Your task to perform on an android device: allow cookies in the chrome app Image 0: 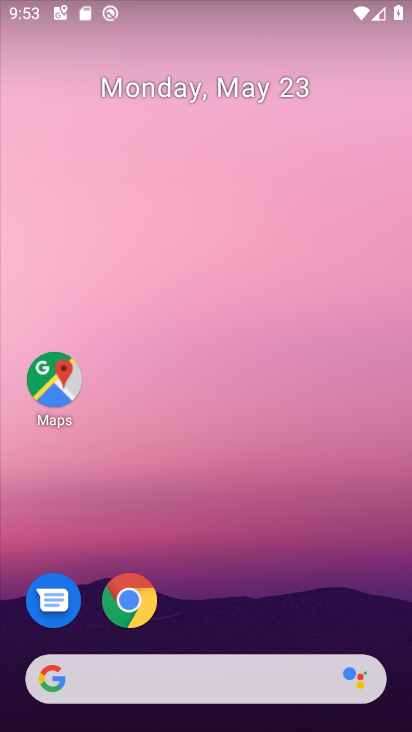
Step 0: click (124, 597)
Your task to perform on an android device: allow cookies in the chrome app Image 1: 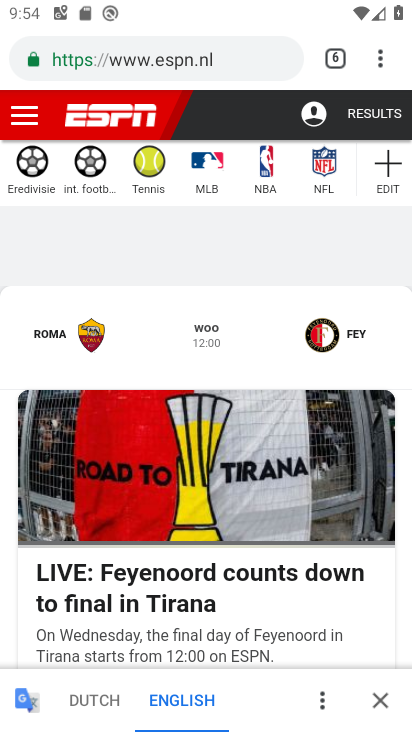
Step 1: click (378, 62)
Your task to perform on an android device: allow cookies in the chrome app Image 2: 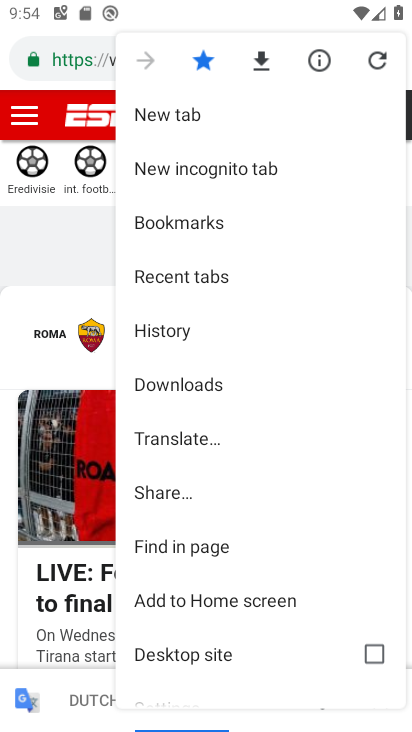
Step 2: drag from (217, 626) to (220, 221)
Your task to perform on an android device: allow cookies in the chrome app Image 3: 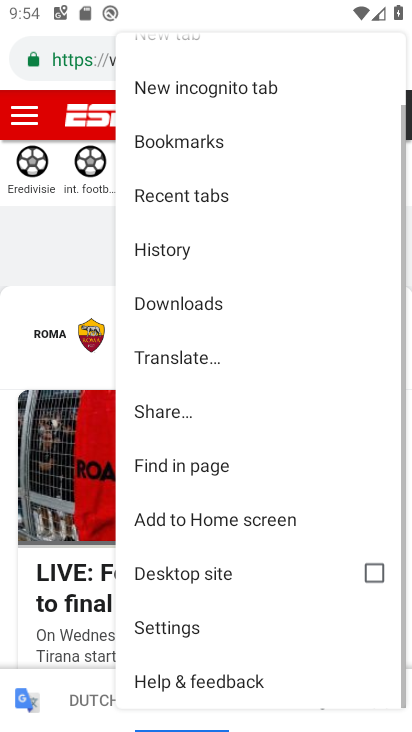
Step 3: click (176, 621)
Your task to perform on an android device: allow cookies in the chrome app Image 4: 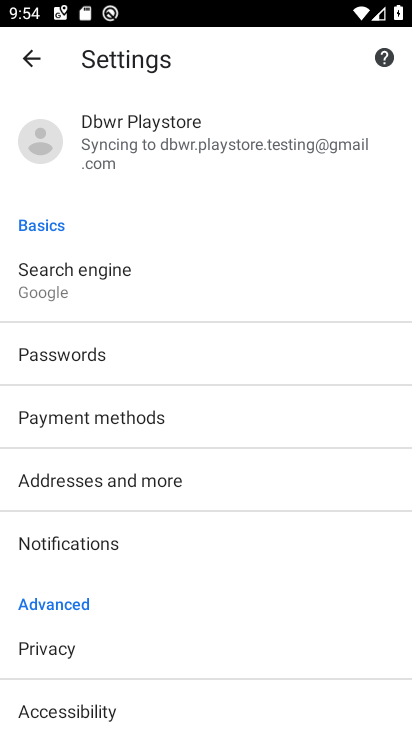
Step 4: drag from (116, 675) to (117, 325)
Your task to perform on an android device: allow cookies in the chrome app Image 5: 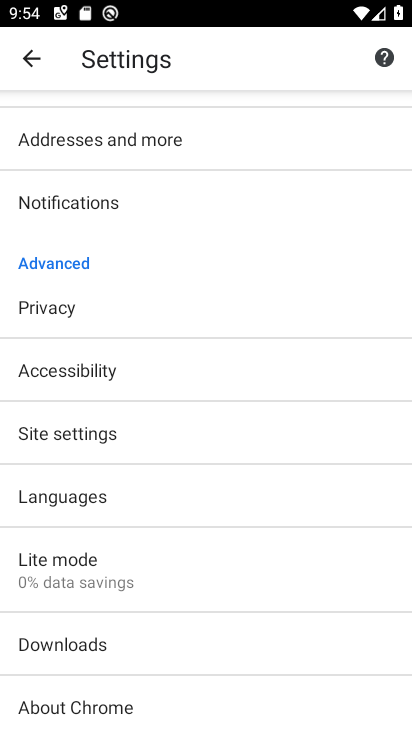
Step 5: click (73, 430)
Your task to perform on an android device: allow cookies in the chrome app Image 6: 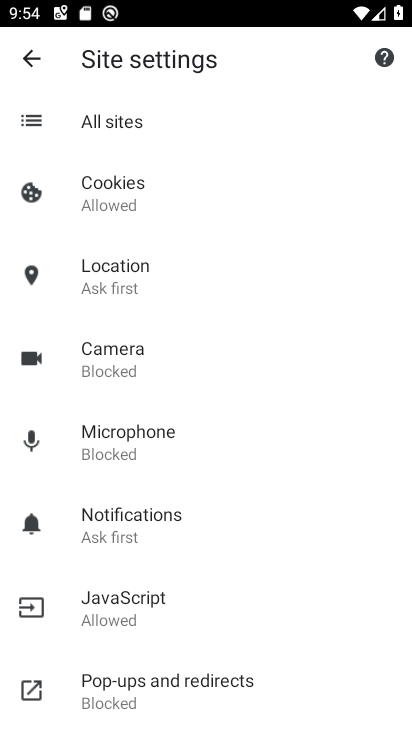
Step 6: click (96, 197)
Your task to perform on an android device: allow cookies in the chrome app Image 7: 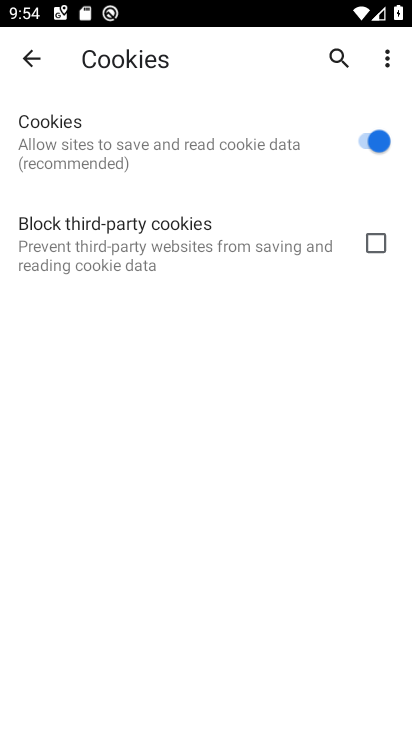
Step 7: task complete